Your task to perform on an android device: Open the phone app and click the voicemail tab. Image 0: 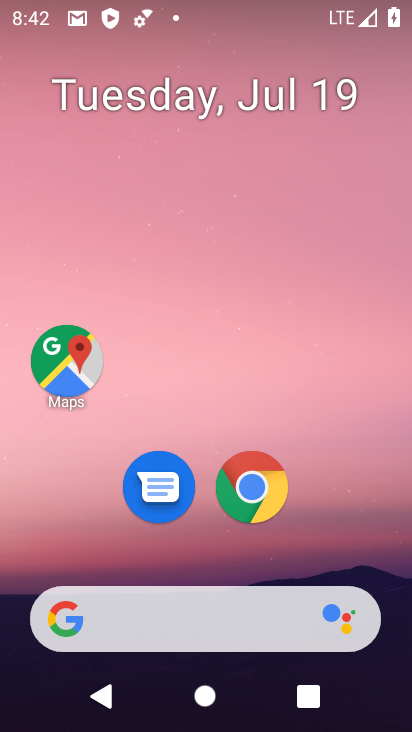
Step 0: drag from (210, 505) to (299, 4)
Your task to perform on an android device: Open the phone app and click the voicemail tab. Image 1: 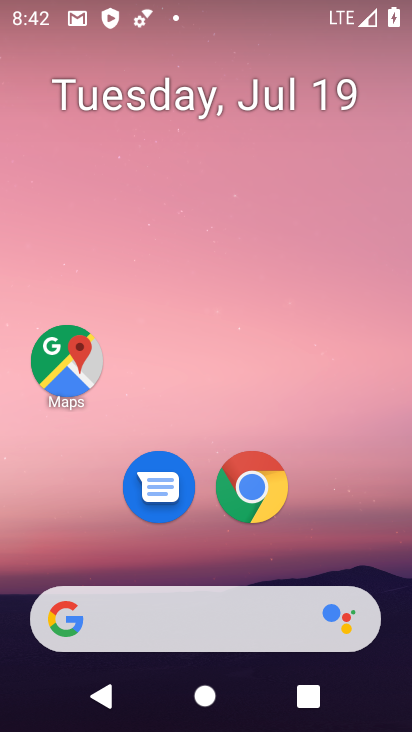
Step 1: drag from (177, 570) to (260, 37)
Your task to perform on an android device: Open the phone app and click the voicemail tab. Image 2: 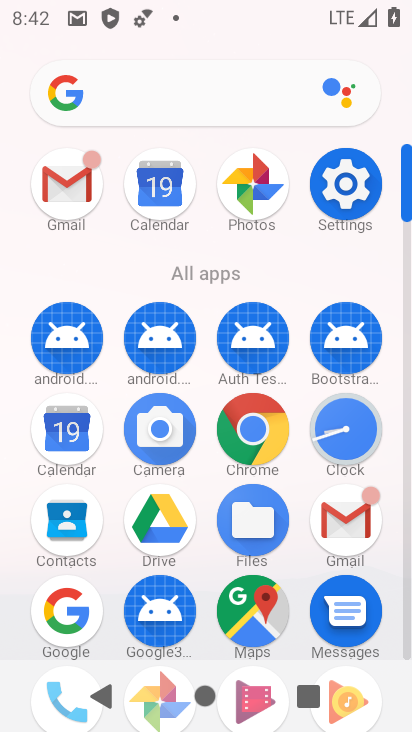
Step 2: drag from (183, 622) to (264, 212)
Your task to perform on an android device: Open the phone app and click the voicemail tab. Image 3: 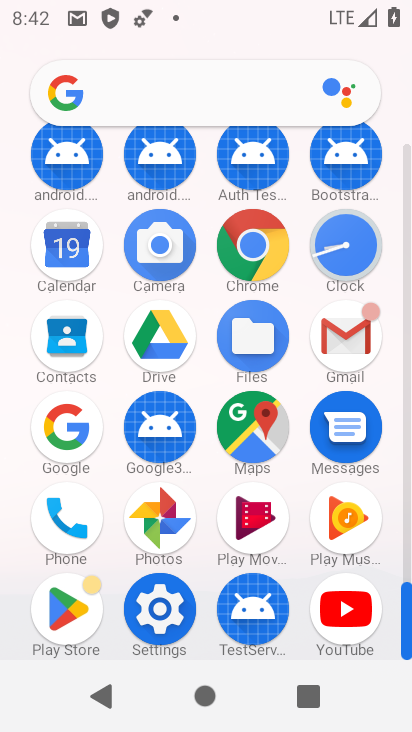
Step 3: click (70, 518)
Your task to perform on an android device: Open the phone app and click the voicemail tab. Image 4: 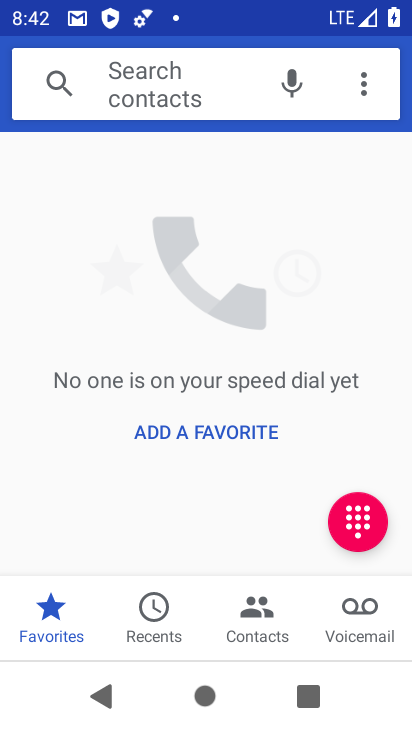
Step 4: click (367, 621)
Your task to perform on an android device: Open the phone app and click the voicemail tab. Image 5: 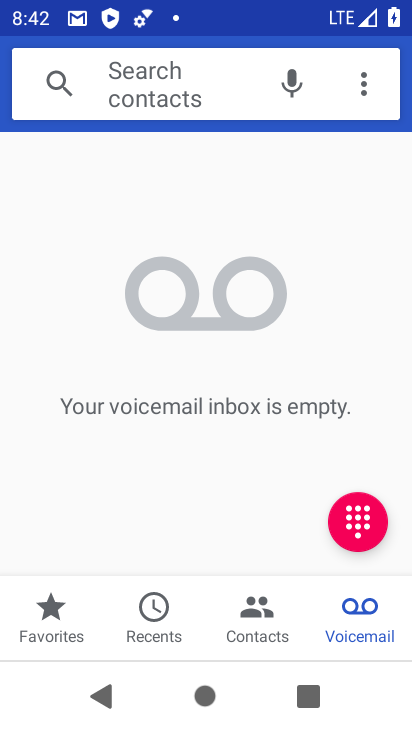
Step 5: task complete